Your task to perform on an android device: Go to internet settings Image 0: 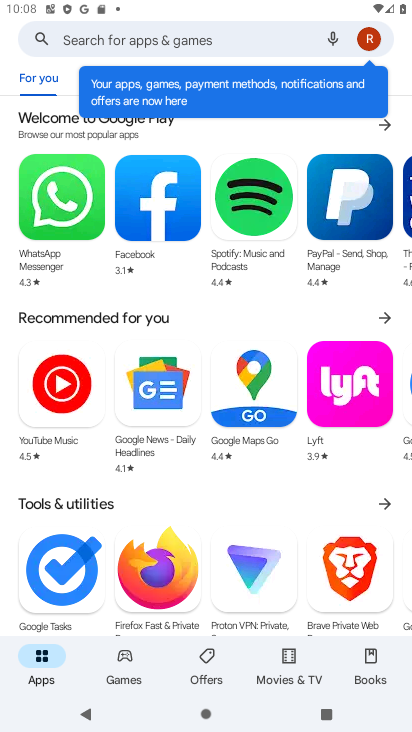
Step 0: press home button
Your task to perform on an android device: Go to internet settings Image 1: 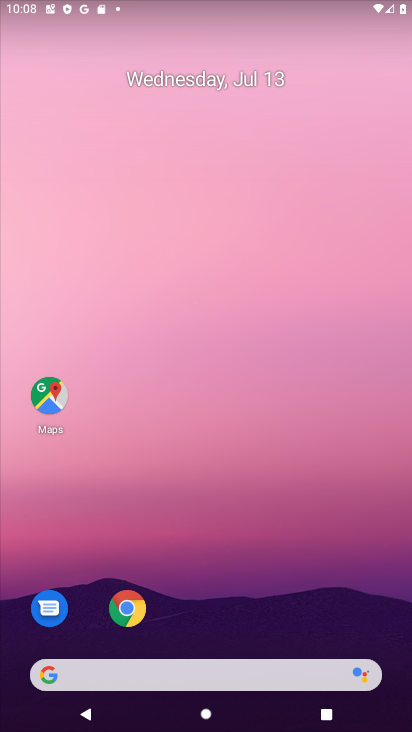
Step 1: drag from (229, 672) to (191, 134)
Your task to perform on an android device: Go to internet settings Image 2: 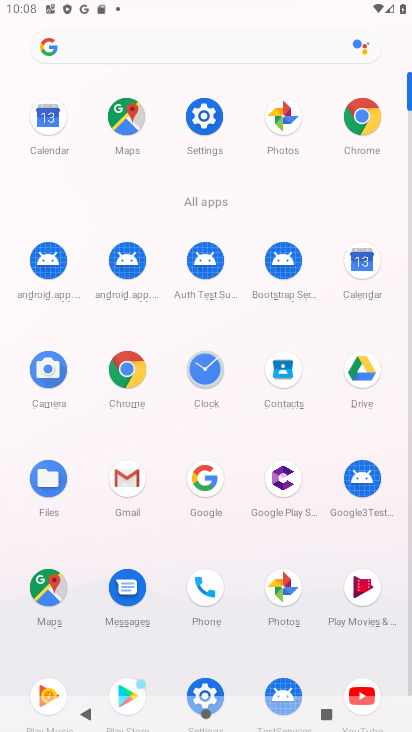
Step 2: click (202, 117)
Your task to perform on an android device: Go to internet settings Image 3: 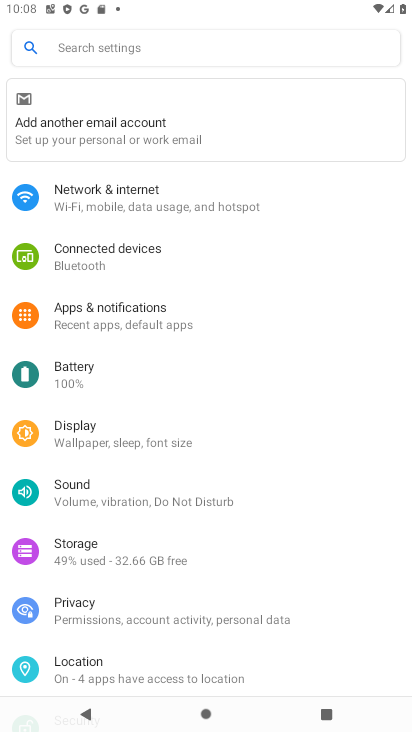
Step 3: click (141, 204)
Your task to perform on an android device: Go to internet settings Image 4: 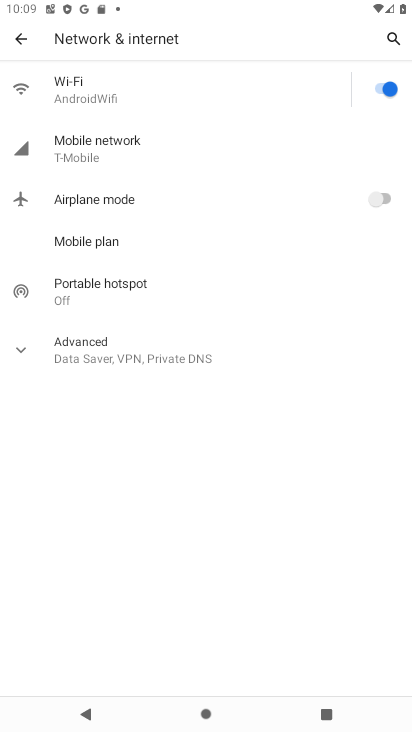
Step 4: task complete